Your task to perform on an android device: open the mobile data screen to see how much data has been used Image 0: 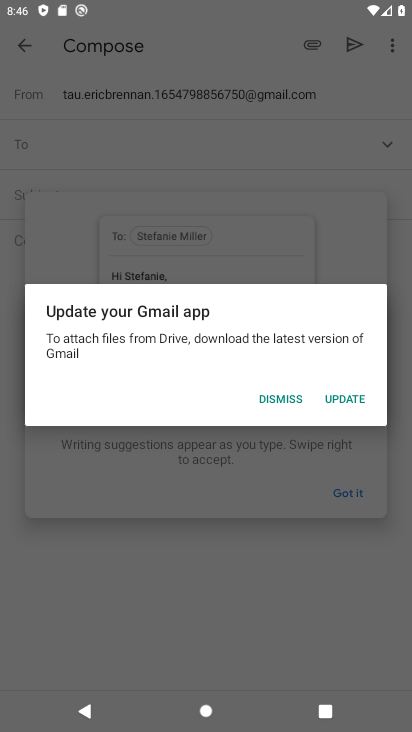
Step 0: click (292, 402)
Your task to perform on an android device: open the mobile data screen to see how much data has been used Image 1: 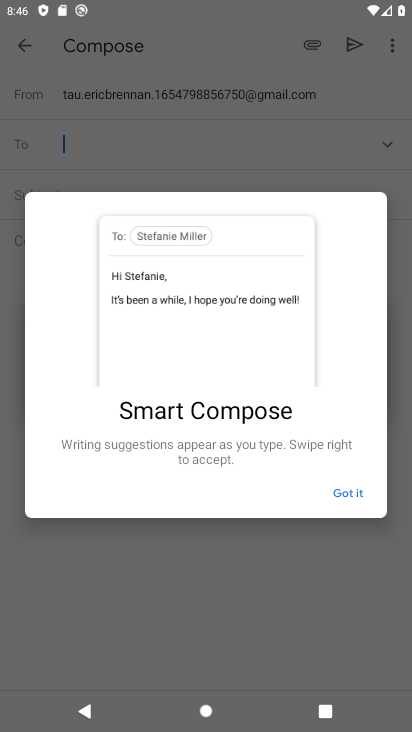
Step 1: click (359, 491)
Your task to perform on an android device: open the mobile data screen to see how much data has been used Image 2: 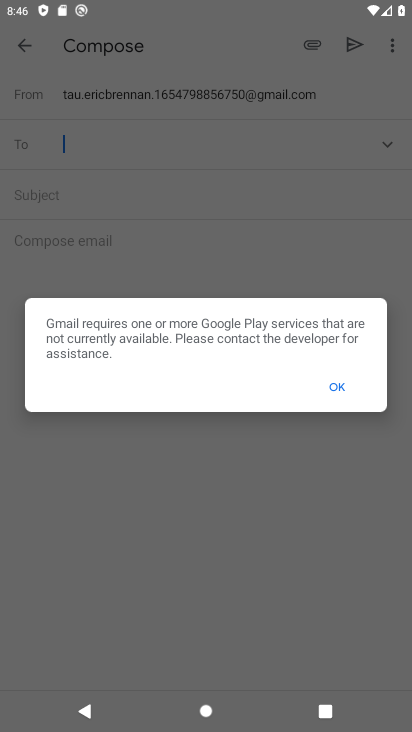
Step 2: click (325, 388)
Your task to perform on an android device: open the mobile data screen to see how much data has been used Image 3: 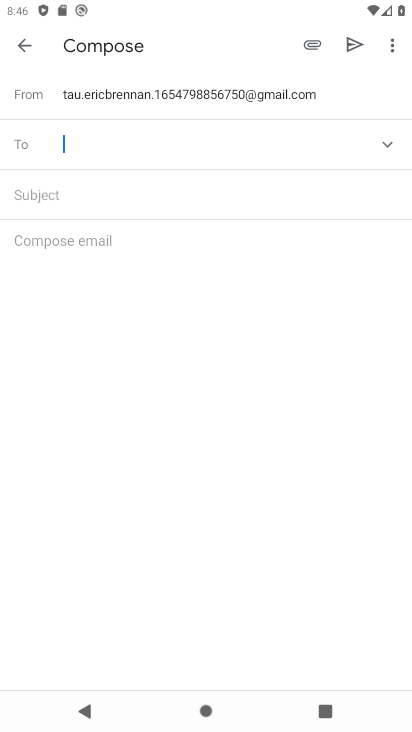
Step 3: press home button
Your task to perform on an android device: open the mobile data screen to see how much data has been used Image 4: 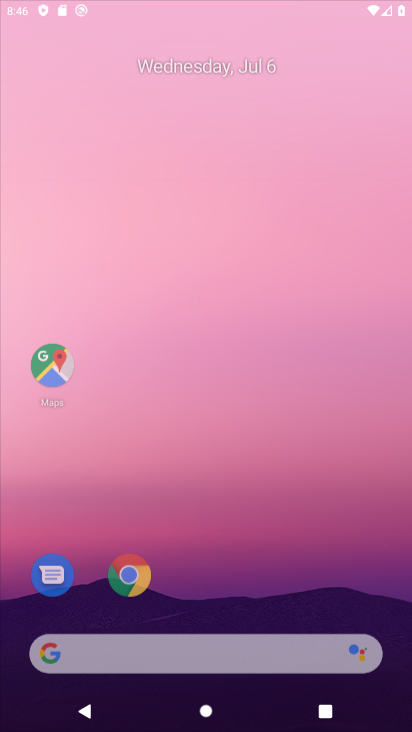
Step 4: drag from (236, 573) to (322, 93)
Your task to perform on an android device: open the mobile data screen to see how much data has been used Image 5: 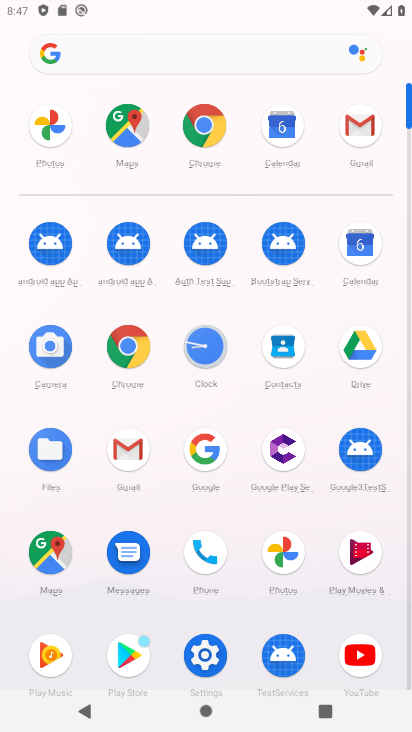
Step 5: click (199, 648)
Your task to perform on an android device: open the mobile data screen to see how much data has been used Image 6: 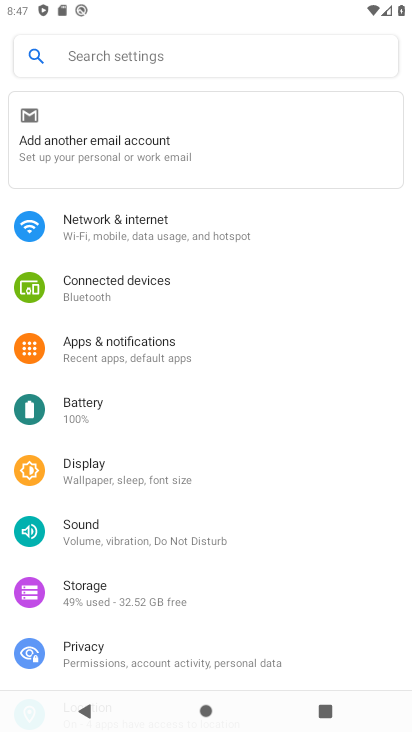
Step 6: click (170, 224)
Your task to perform on an android device: open the mobile data screen to see how much data has been used Image 7: 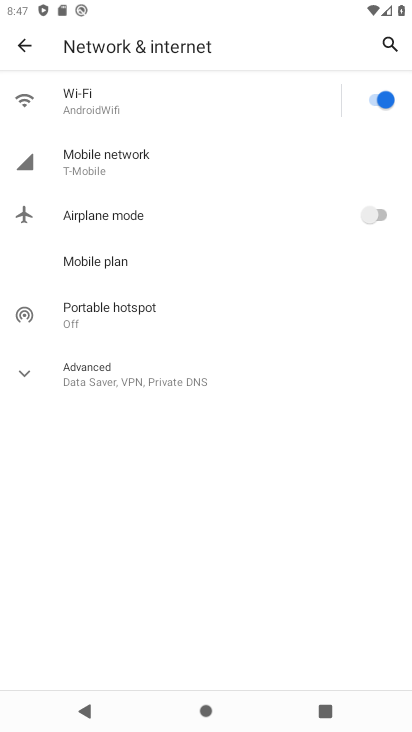
Step 7: click (146, 153)
Your task to perform on an android device: open the mobile data screen to see how much data has been used Image 8: 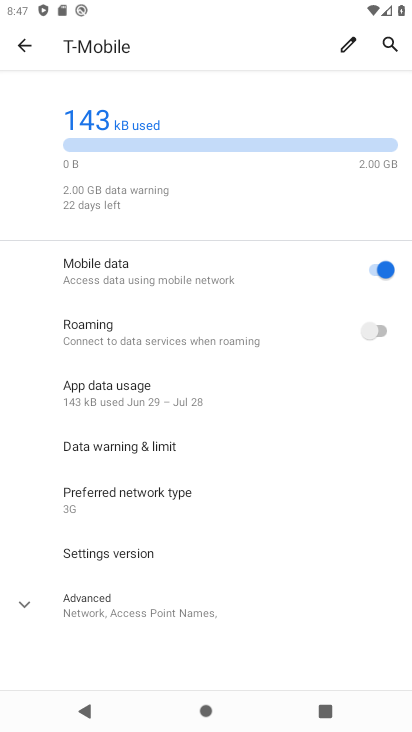
Step 8: click (109, 391)
Your task to perform on an android device: open the mobile data screen to see how much data has been used Image 9: 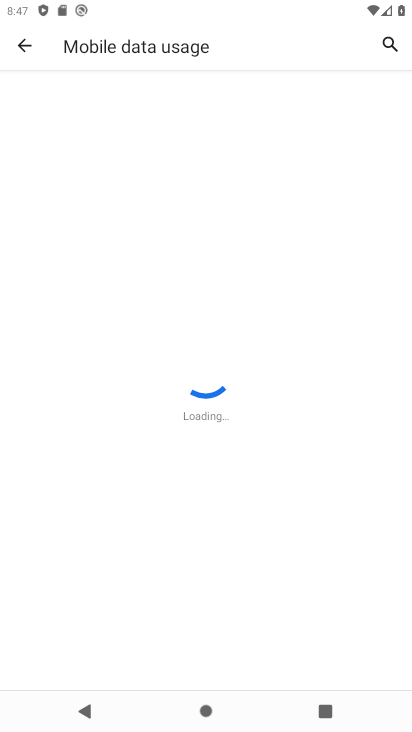
Step 9: task complete